Your task to perform on an android device: See recent photos Image 0: 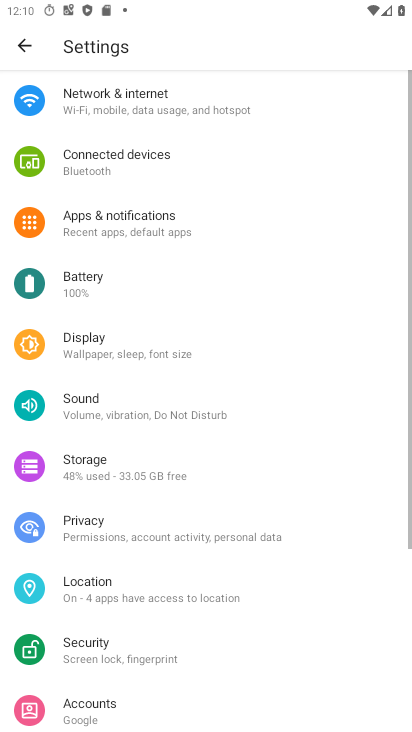
Step 0: press home button
Your task to perform on an android device: See recent photos Image 1: 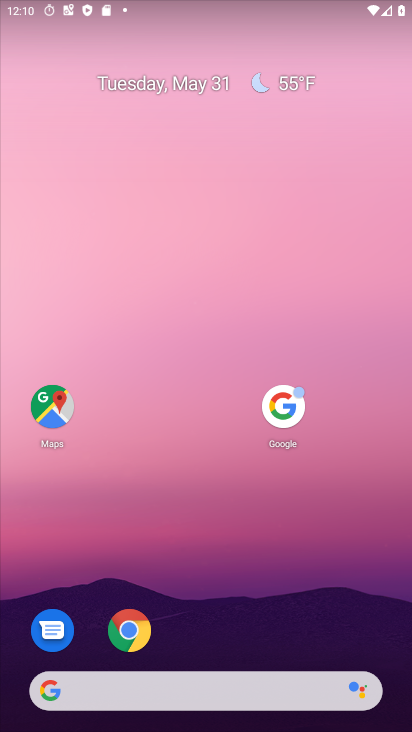
Step 1: drag from (175, 692) to (328, 71)
Your task to perform on an android device: See recent photos Image 2: 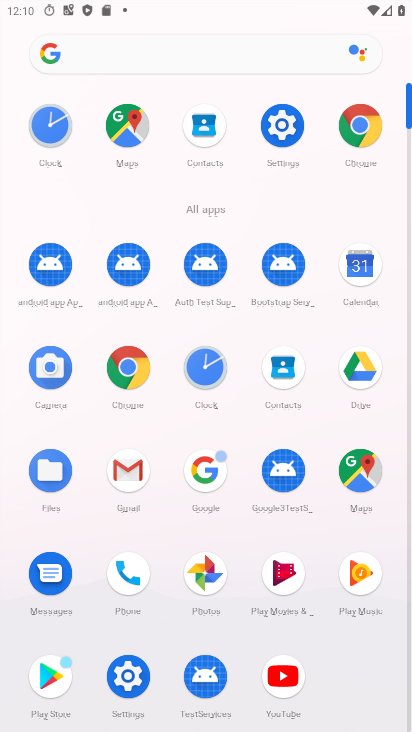
Step 2: click (212, 577)
Your task to perform on an android device: See recent photos Image 3: 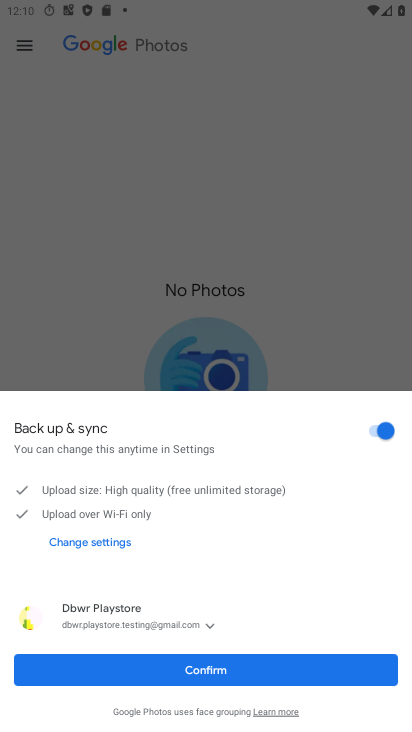
Step 3: click (226, 670)
Your task to perform on an android device: See recent photos Image 4: 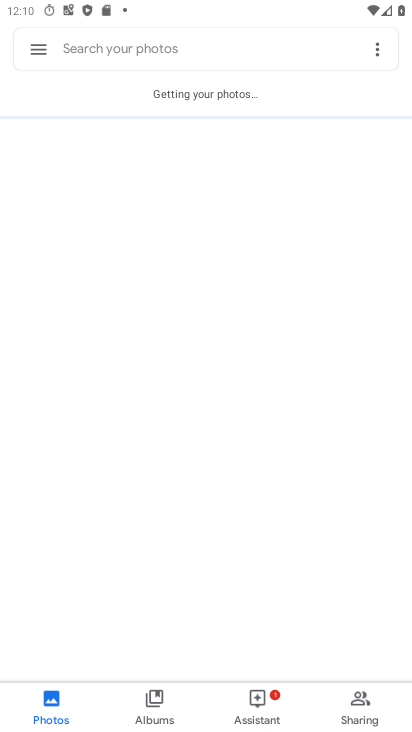
Step 4: click (158, 714)
Your task to perform on an android device: See recent photos Image 5: 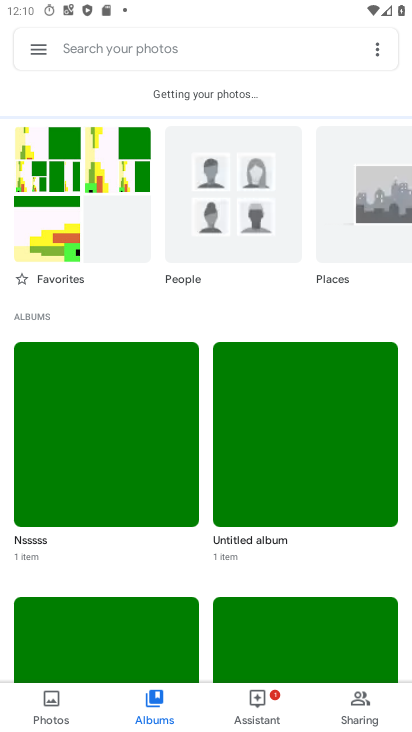
Step 5: click (256, 698)
Your task to perform on an android device: See recent photos Image 6: 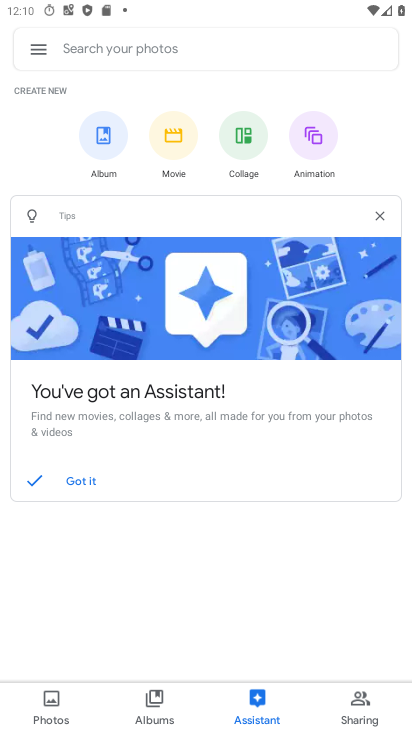
Step 6: task complete